Your task to perform on an android device: uninstall "Move to iOS" Image 0: 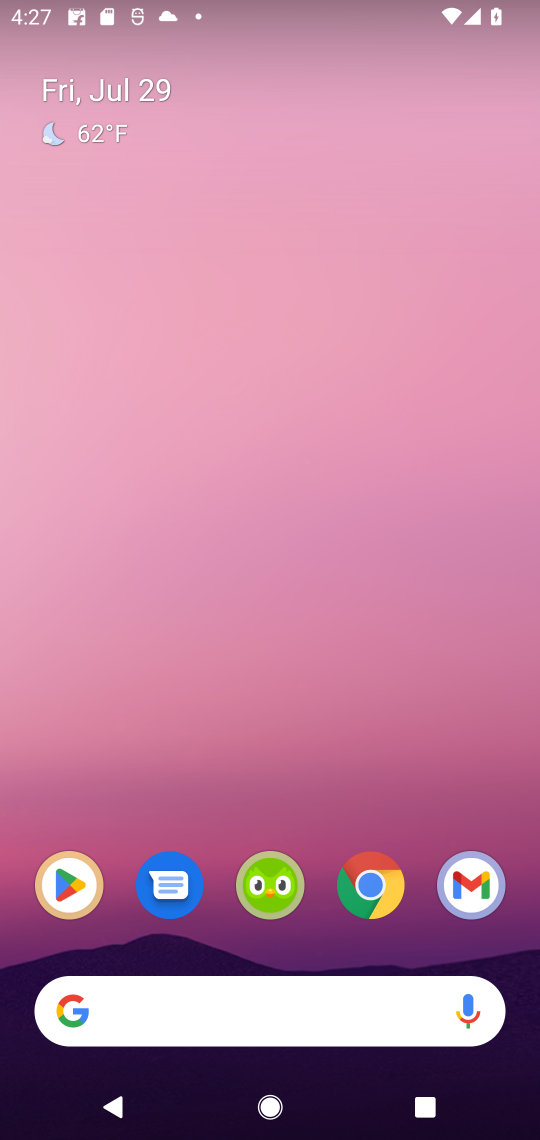
Step 0: click (82, 855)
Your task to perform on an android device: uninstall "Move to iOS" Image 1: 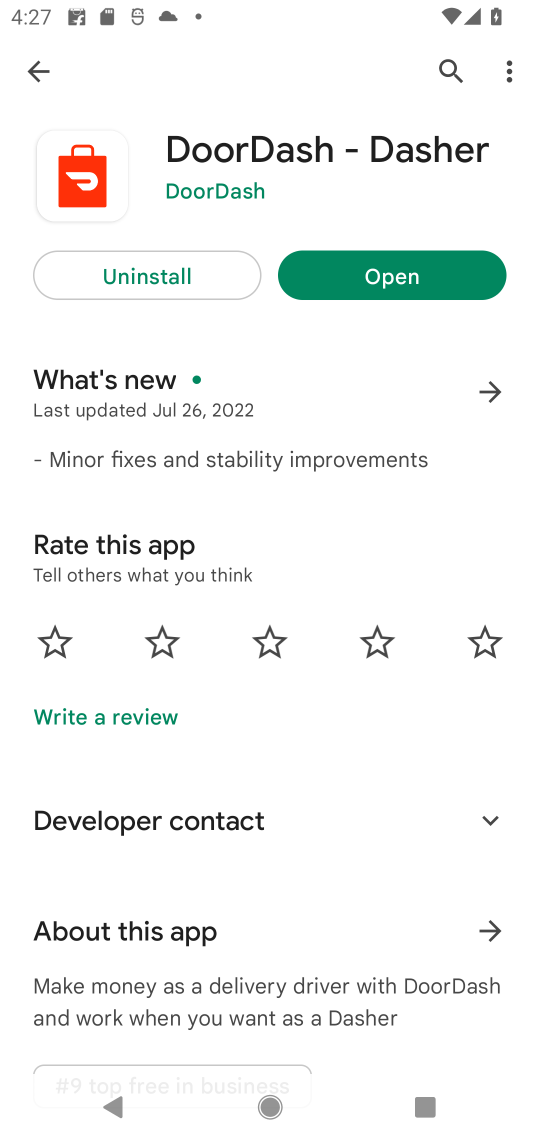
Step 1: click (451, 75)
Your task to perform on an android device: uninstall "Move to iOS" Image 2: 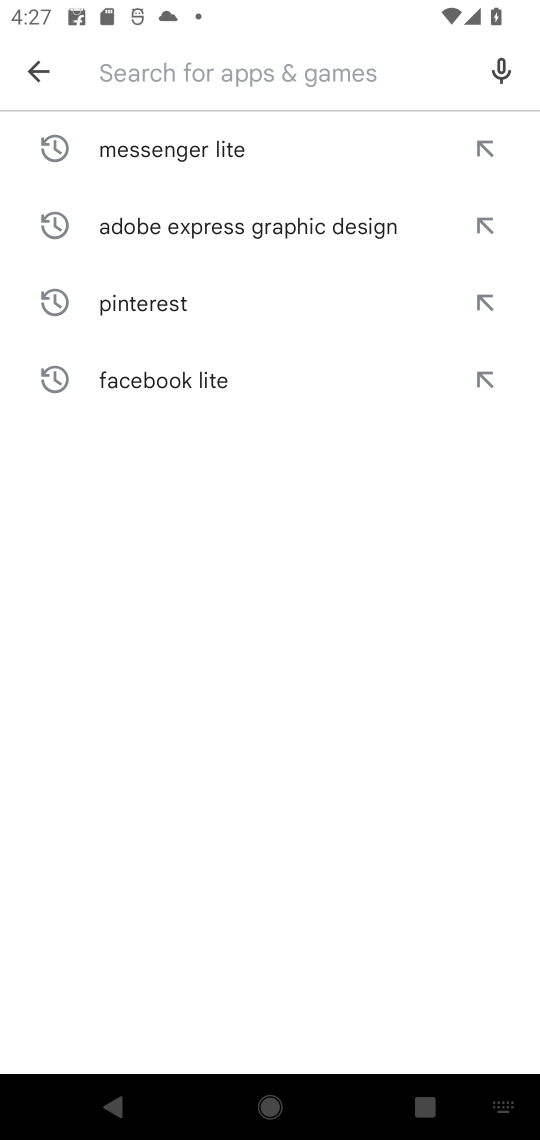
Step 2: type "Move to iOS"
Your task to perform on an android device: uninstall "Move to iOS" Image 3: 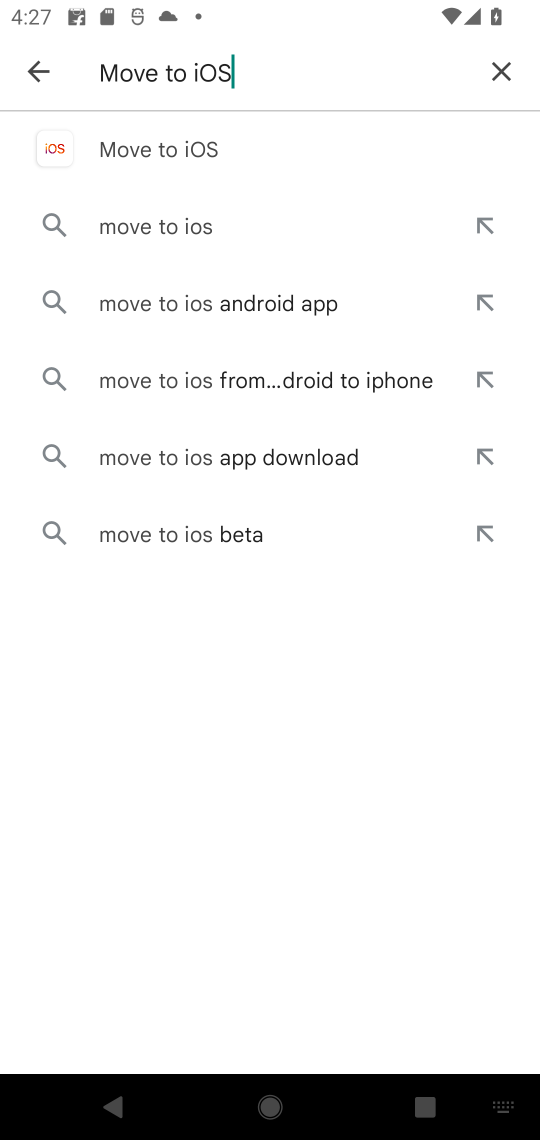
Step 3: click (189, 154)
Your task to perform on an android device: uninstall "Move to iOS" Image 4: 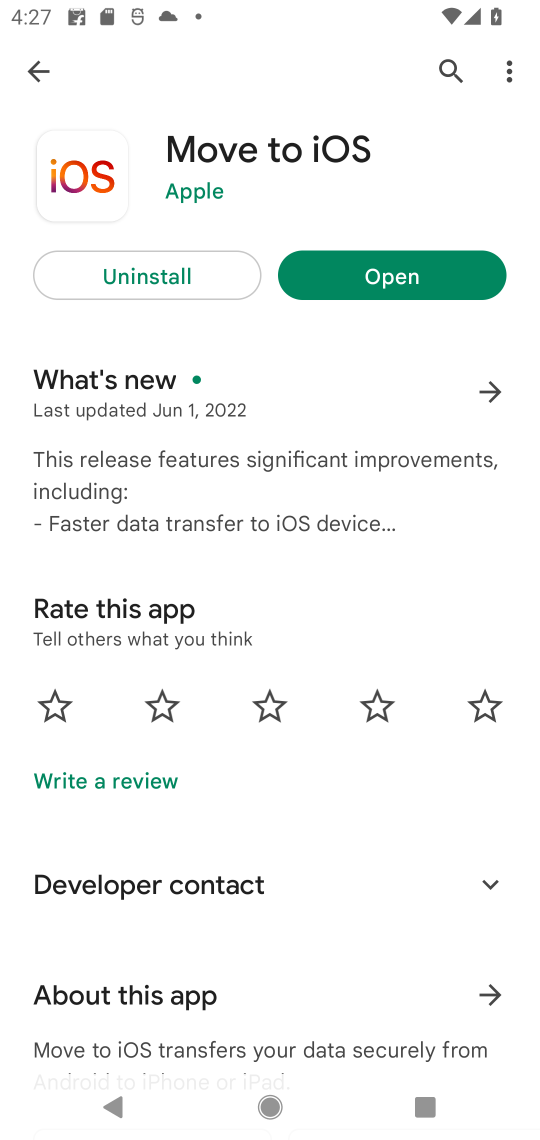
Step 4: click (155, 268)
Your task to perform on an android device: uninstall "Move to iOS" Image 5: 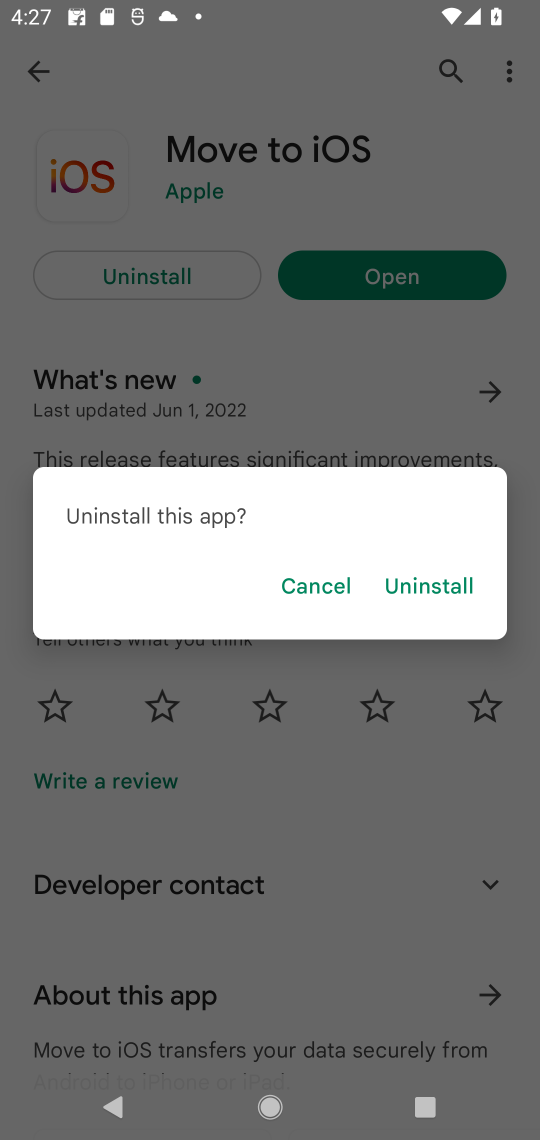
Step 5: click (425, 584)
Your task to perform on an android device: uninstall "Move to iOS" Image 6: 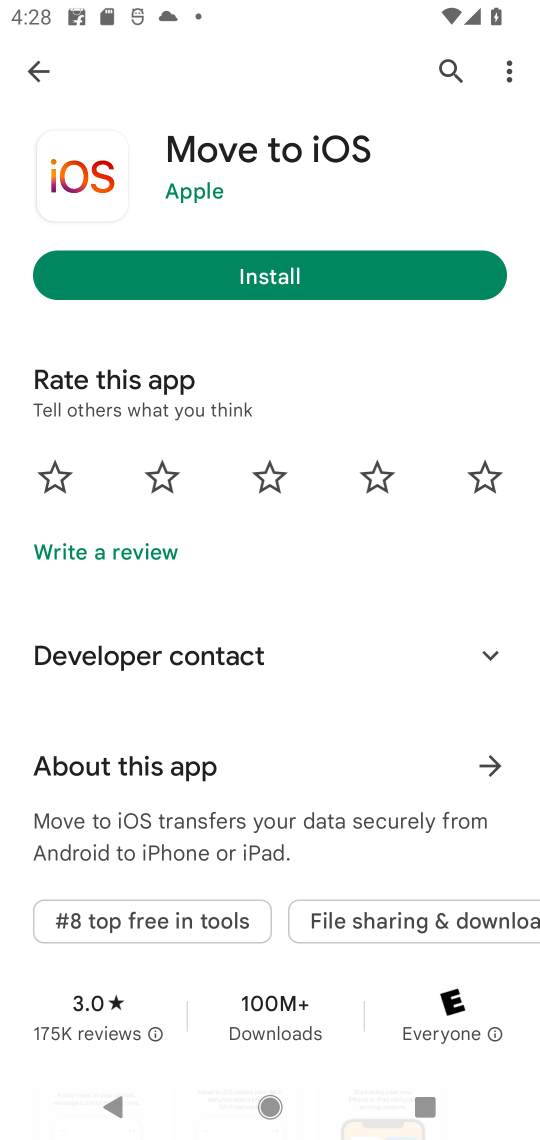
Step 6: task complete